Your task to perform on an android device: Open settings on Google Maps Image 0: 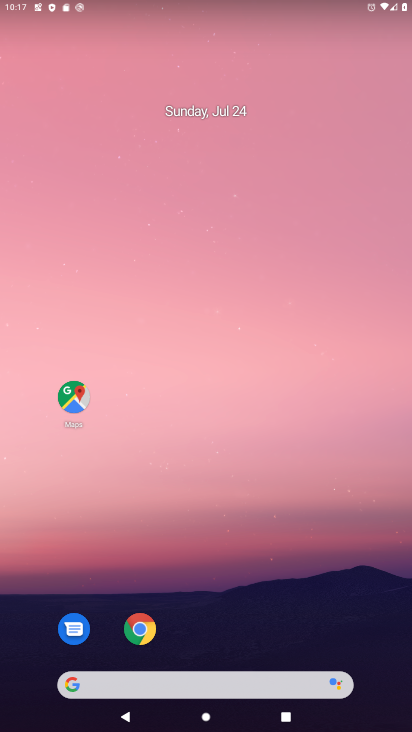
Step 0: drag from (189, 634) to (253, 260)
Your task to perform on an android device: Open settings on Google Maps Image 1: 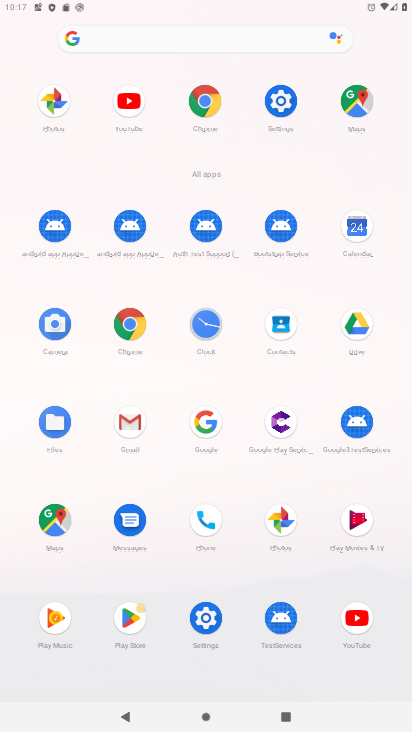
Step 1: click (63, 511)
Your task to perform on an android device: Open settings on Google Maps Image 2: 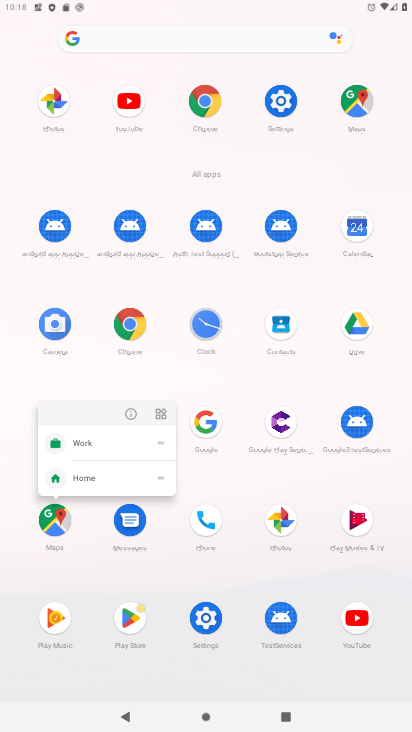
Step 2: click (126, 415)
Your task to perform on an android device: Open settings on Google Maps Image 3: 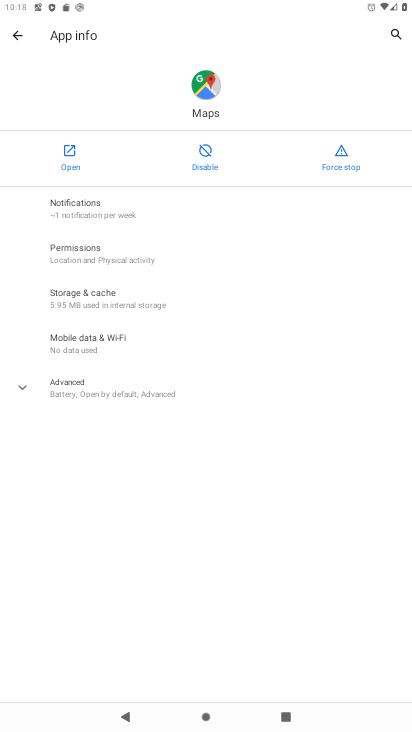
Step 3: click (73, 138)
Your task to perform on an android device: Open settings on Google Maps Image 4: 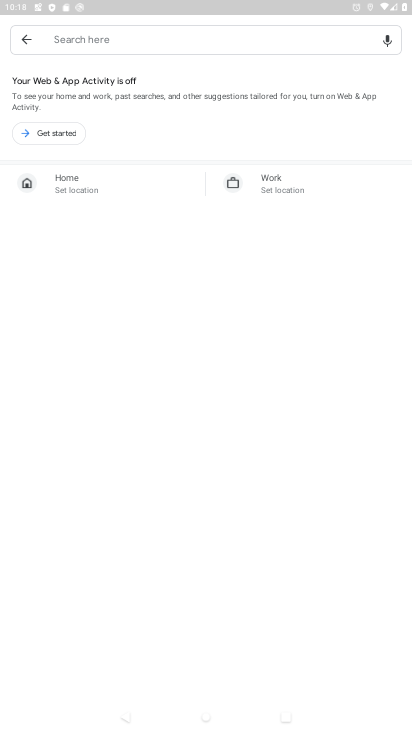
Step 4: click (17, 39)
Your task to perform on an android device: Open settings on Google Maps Image 5: 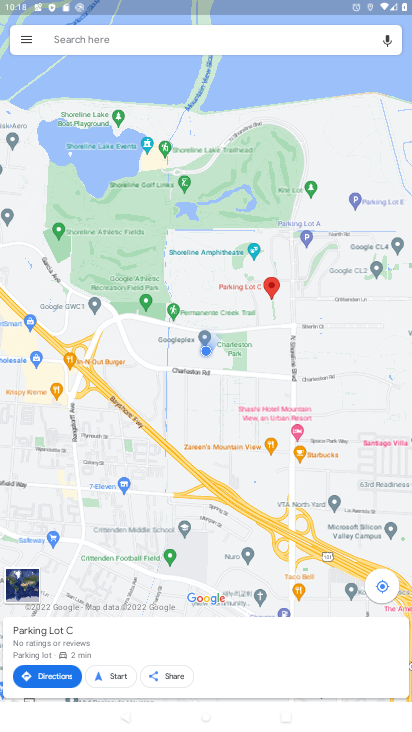
Step 5: click (24, 33)
Your task to perform on an android device: Open settings on Google Maps Image 6: 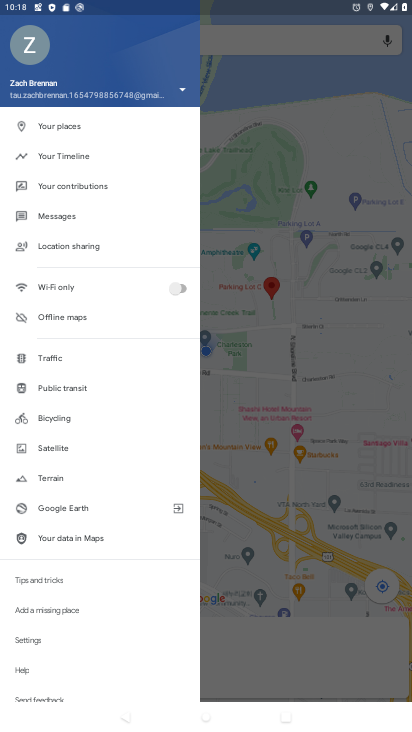
Step 6: click (42, 636)
Your task to perform on an android device: Open settings on Google Maps Image 7: 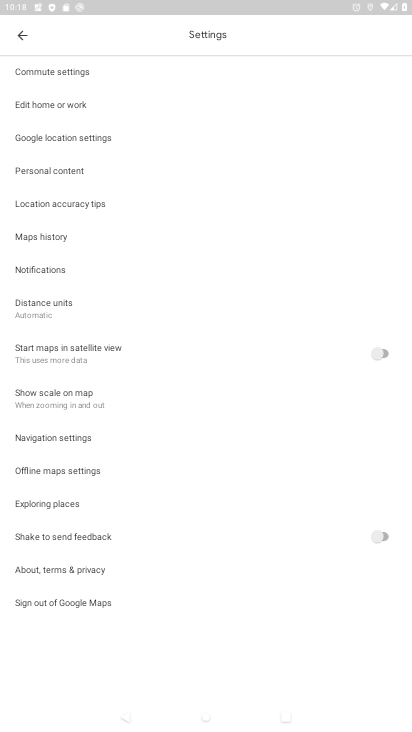
Step 7: task complete